Your task to perform on an android device: clear all cookies in the chrome app Image 0: 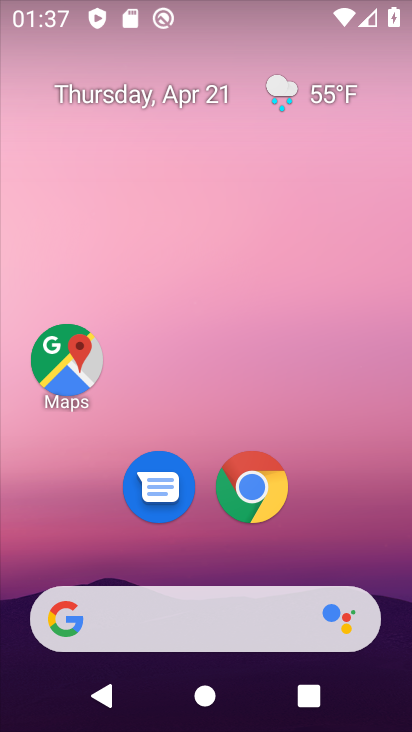
Step 0: click (274, 497)
Your task to perform on an android device: clear all cookies in the chrome app Image 1: 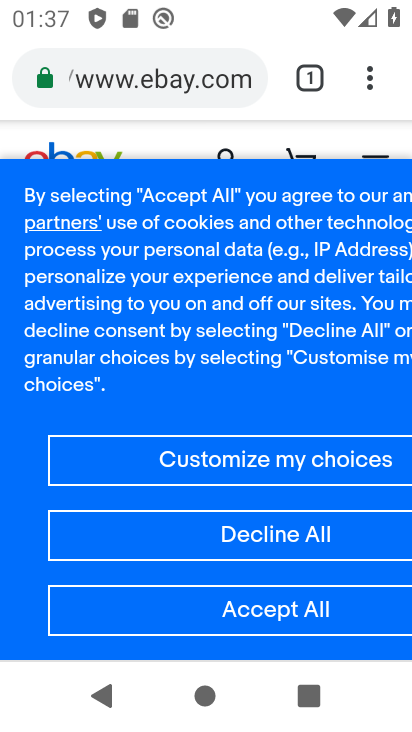
Step 1: click (373, 68)
Your task to perform on an android device: clear all cookies in the chrome app Image 2: 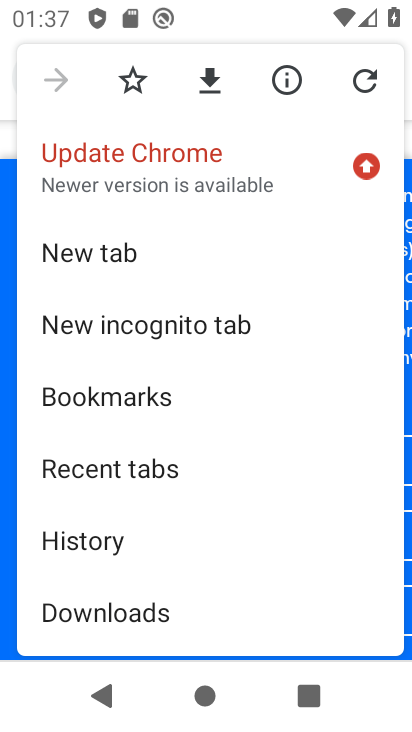
Step 2: click (173, 530)
Your task to perform on an android device: clear all cookies in the chrome app Image 3: 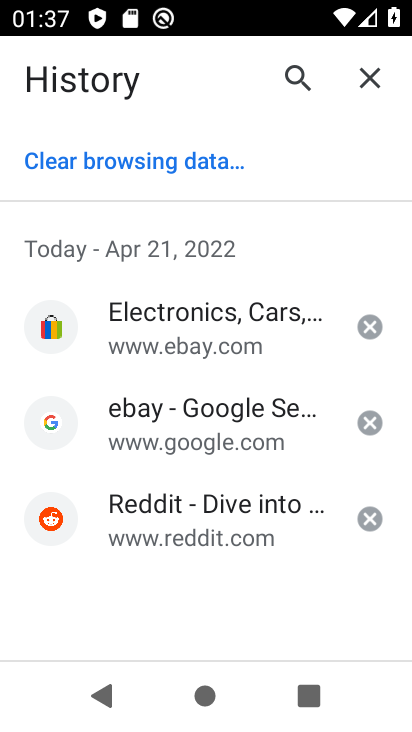
Step 3: click (144, 171)
Your task to perform on an android device: clear all cookies in the chrome app Image 4: 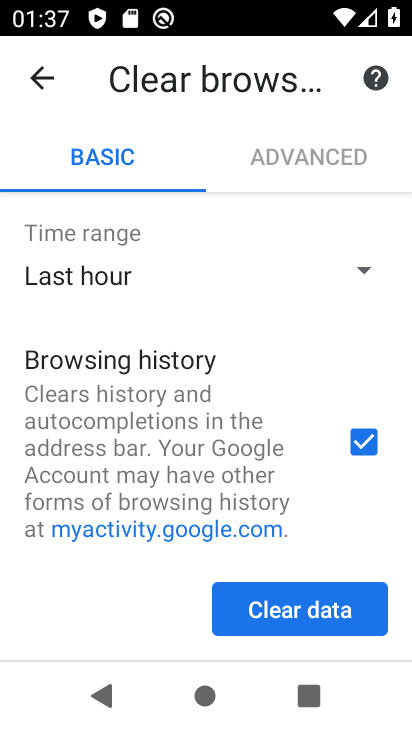
Step 4: click (242, 432)
Your task to perform on an android device: clear all cookies in the chrome app Image 5: 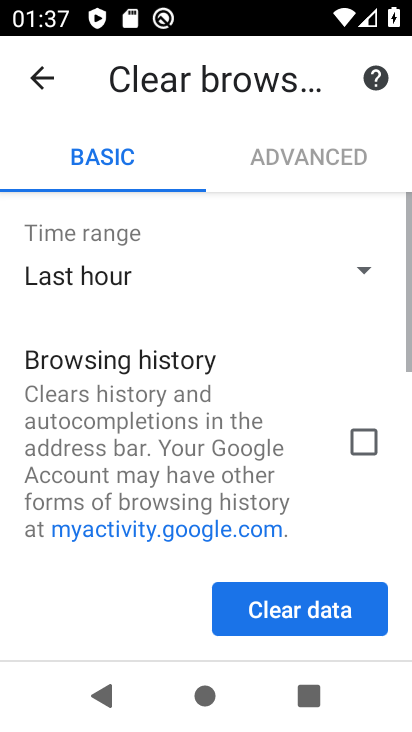
Step 5: drag from (211, 457) to (165, 195)
Your task to perform on an android device: clear all cookies in the chrome app Image 6: 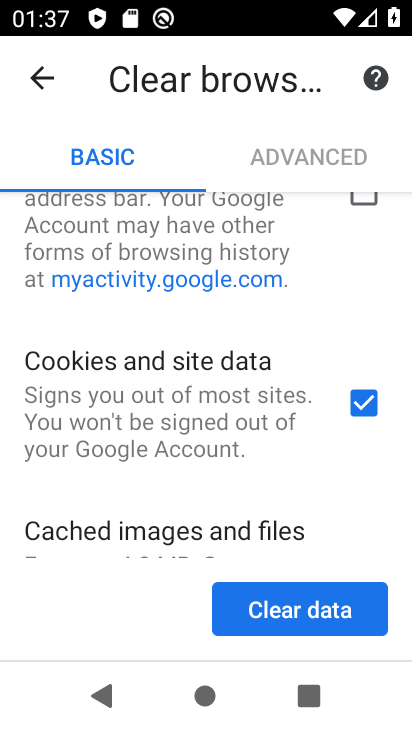
Step 6: drag from (249, 455) to (224, 218)
Your task to perform on an android device: clear all cookies in the chrome app Image 7: 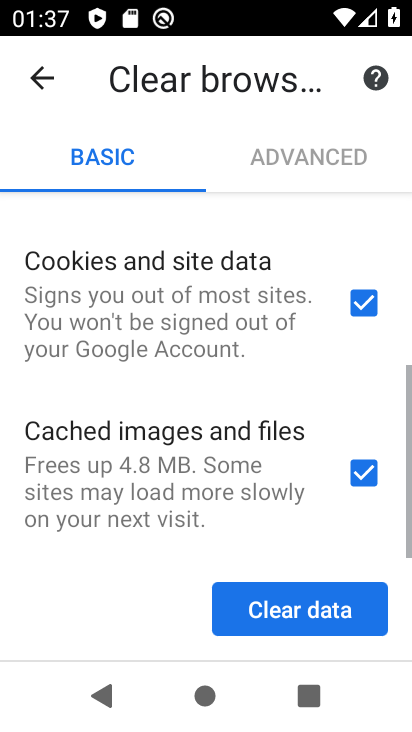
Step 7: click (301, 440)
Your task to perform on an android device: clear all cookies in the chrome app Image 8: 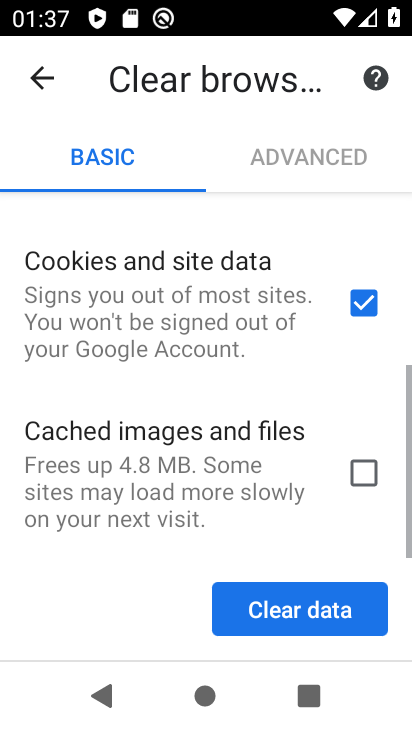
Step 8: click (325, 601)
Your task to perform on an android device: clear all cookies in the chrome app Image 9: 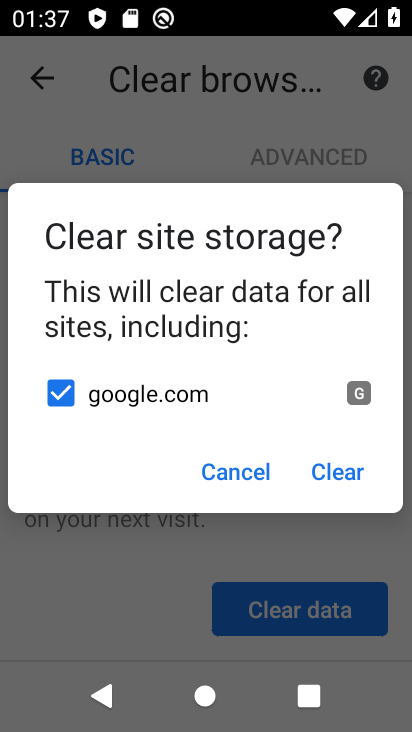
Step 9: click (336, 465)
Your task to perform on an android device: clear all cookies in the chrome app Image 10: 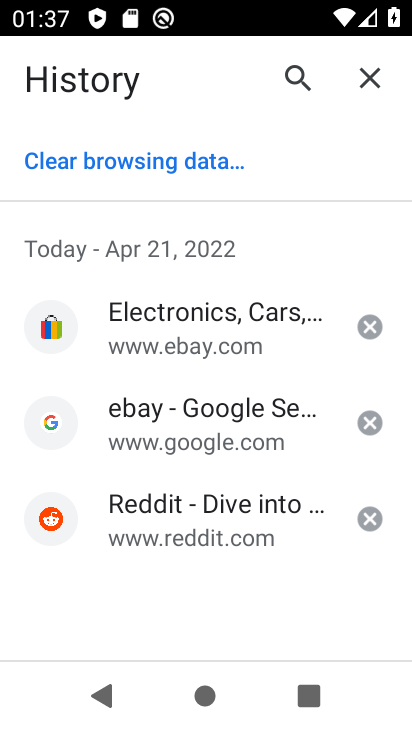
Step 10: task complete